Your task to perform on an android device: What is the recent news? Image 0: 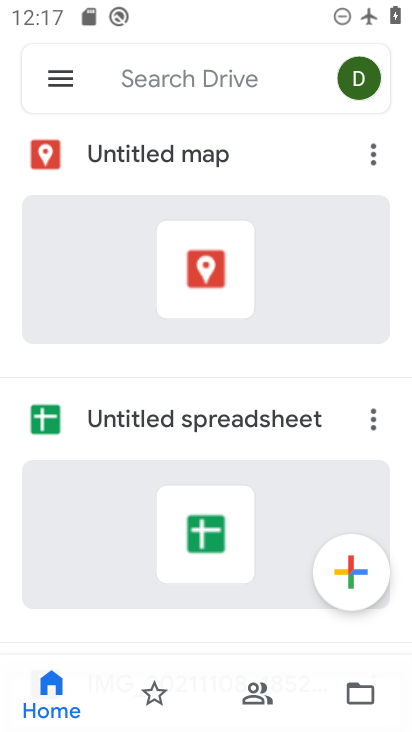
Step 0: press home button
Your task to perform on an android device: What is the recent news? Image 1: 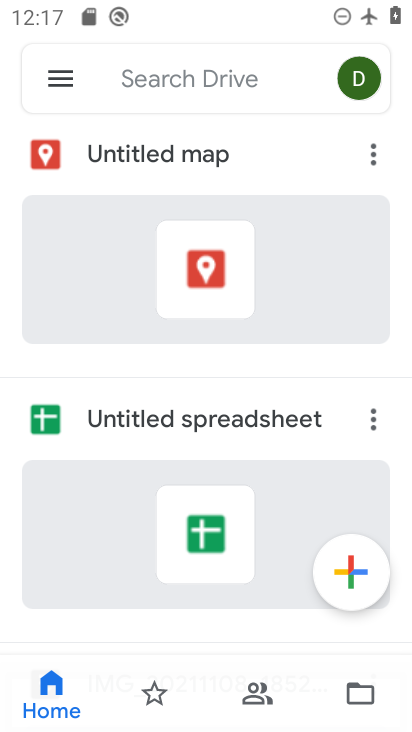
Step 1: task complete